Your task to perform on an android device: Search for sushi restaurants on Maps Image 0: 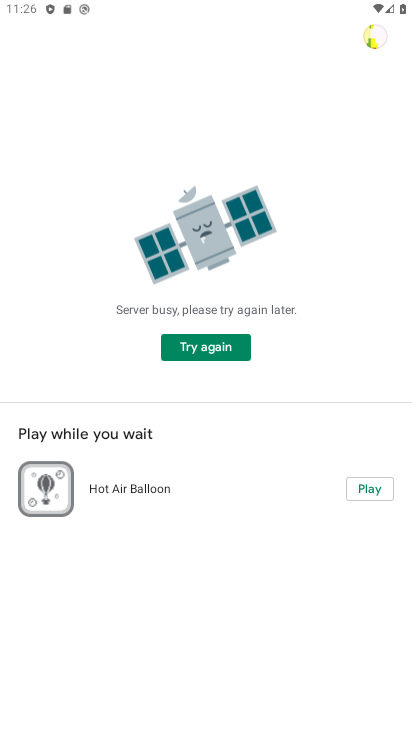
Step 0: press home button
Your task to perform on an android device: Search for sushi restaurants on Maps Image 1: 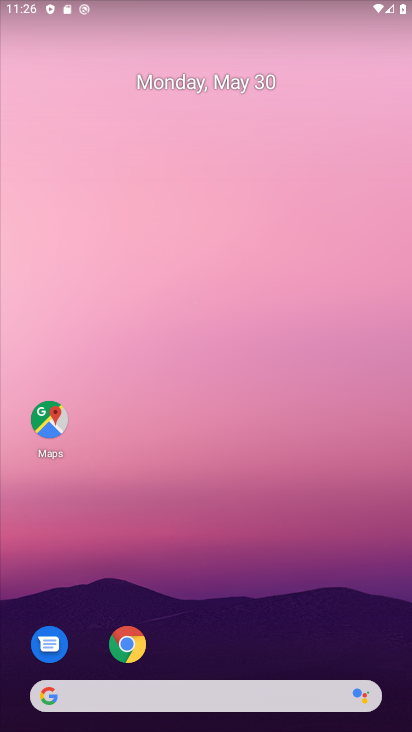
Step 1: click (49, 413)
Your task to perform on an android device: Search for sushi restaurants on Maps Image 2: 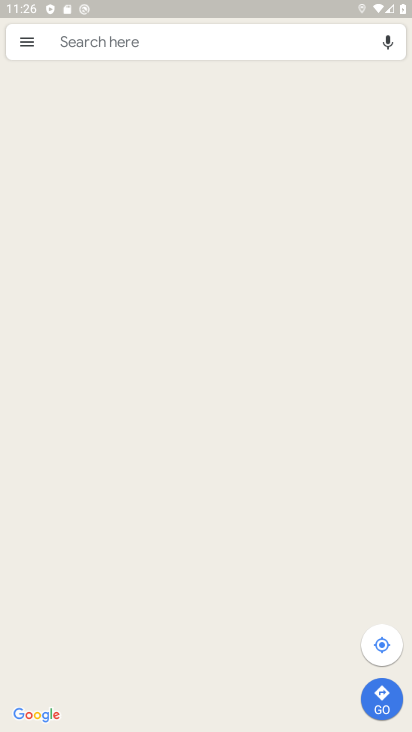
Step 2: click (132, 41)
Your task to perform on an android device: Search for sushi restaurants on Maps Image 3: 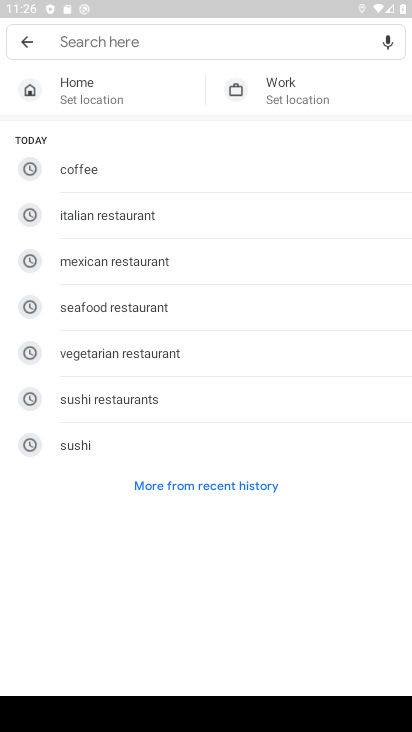
Step 3: type "sushi restaurants"
Your task to perform on an android device: Search for sushi restaurants on Maps Image 4: 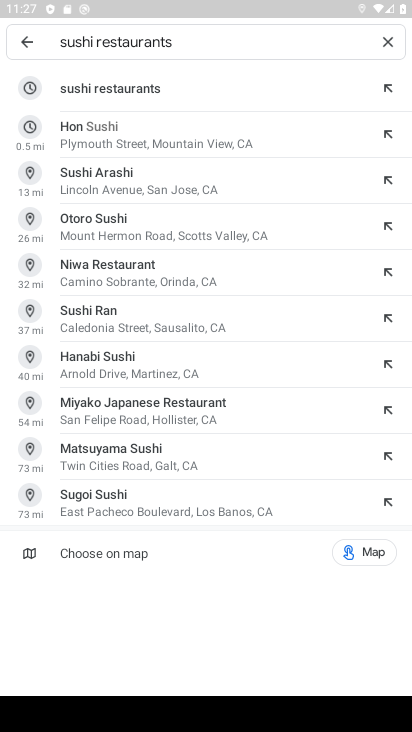
Step 4: click (148, 94)
Your task to perform on an android device: Search for sushi restaurants on Maps Image 5: 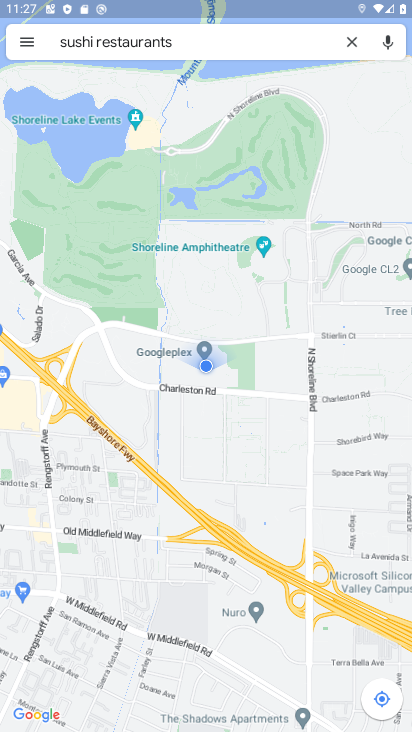
Step 5: task complete